Your task to perform on an android device: check storage Image 0: 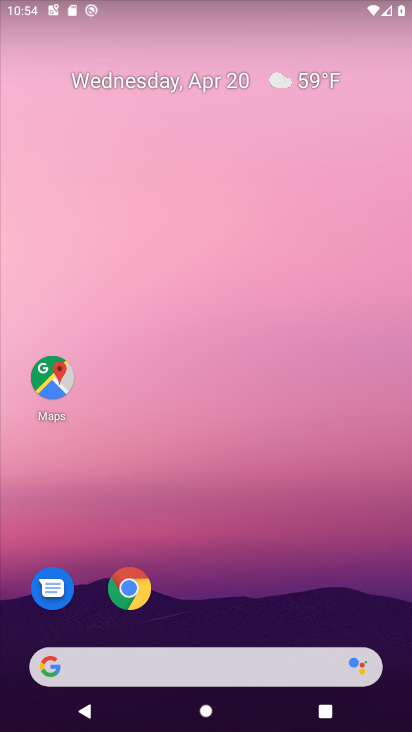
Step 0: click (111, 59)
Your task to perform on an android device: check storage Image 1: 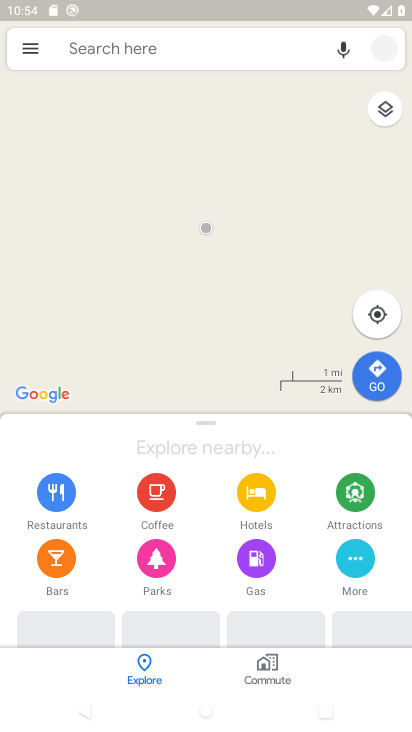
Step 1: press home button
Your task to perform on an android device: check storage Image 2: 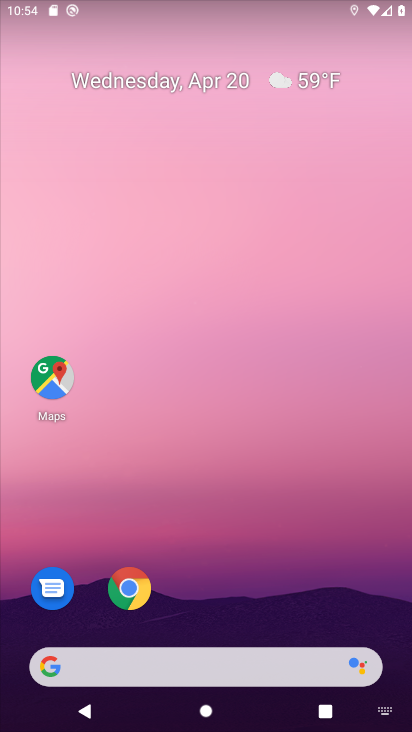
Step 2: drag from (267, 621) to (210, 3)
Your task to perform on an android device: check storage Image 3: 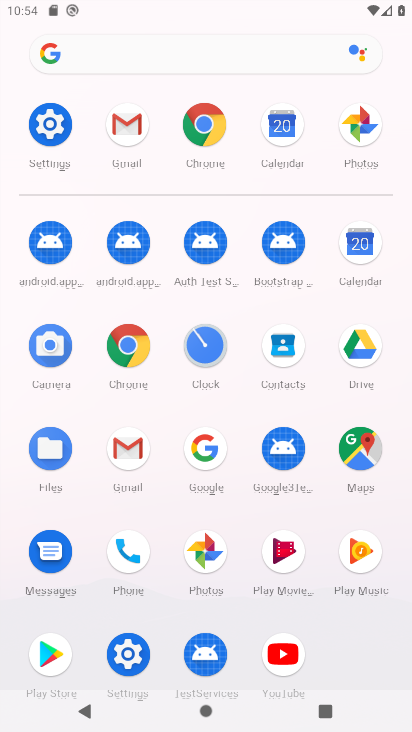
Step 3: click (45, 131)
Your task to perform on an android device: check storage Image 4: 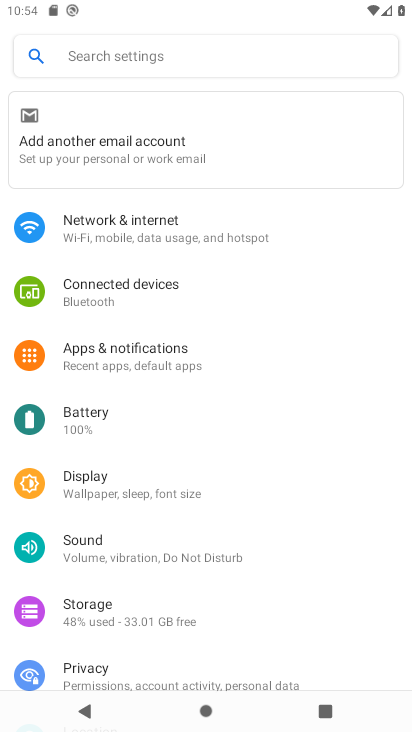
Step 4: click (97, 610)
Your task to perform on an android device: check storage Image 5: 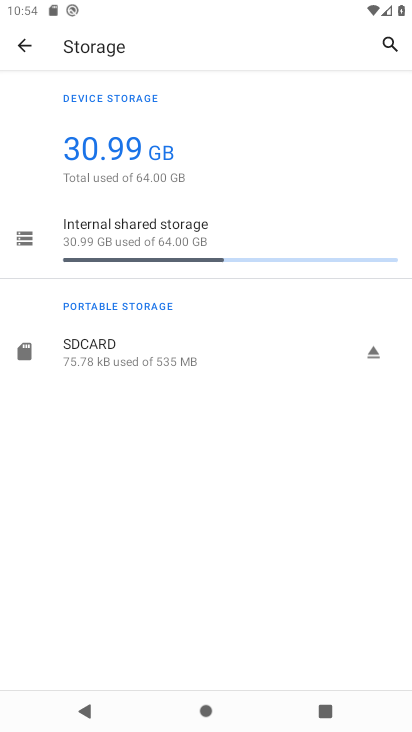
Step 5: task complete